Your task to perform on an android device: change the upload size in google photos Image 0: 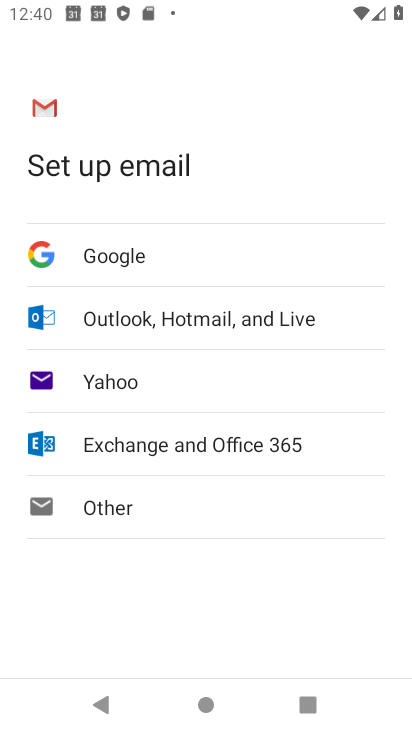
Step 0: press home button
Your task to perform on an android device: change the upload size in google photos Image 1: 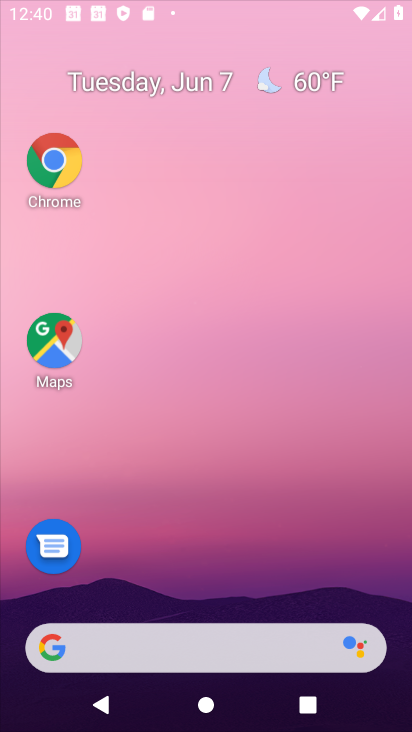
Step 1: drag from (181, 632) to (346, 262)
Your task to perform on an android device: change the upload size in google photos Image 2: 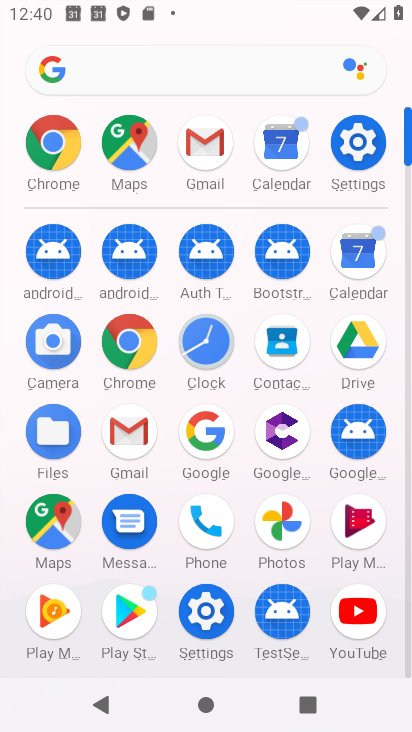
Step 2: click (305, 521)
Your task to perform on an android device: change the upload size in google photos Image 3: 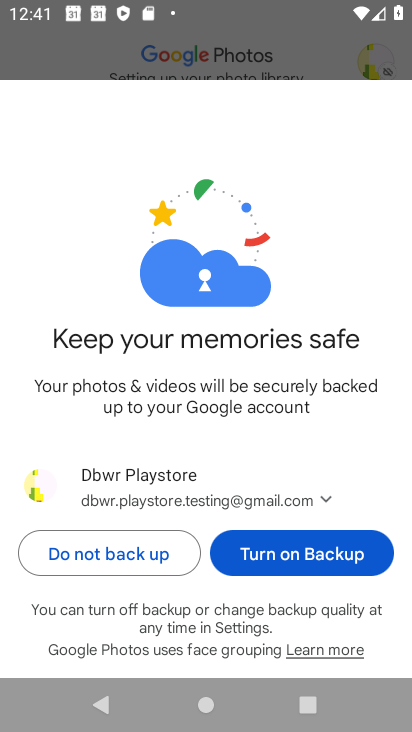
Step 3: click (273, 552)
Your task to perform on an android device: change the upload size in google photos Image 4: 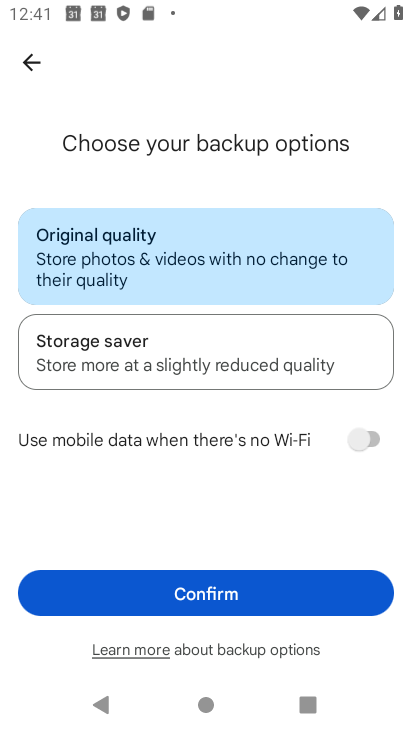
Step 4: click (171, 601)
Your task to perform on an android device: change the upload size in google photos Image 5: 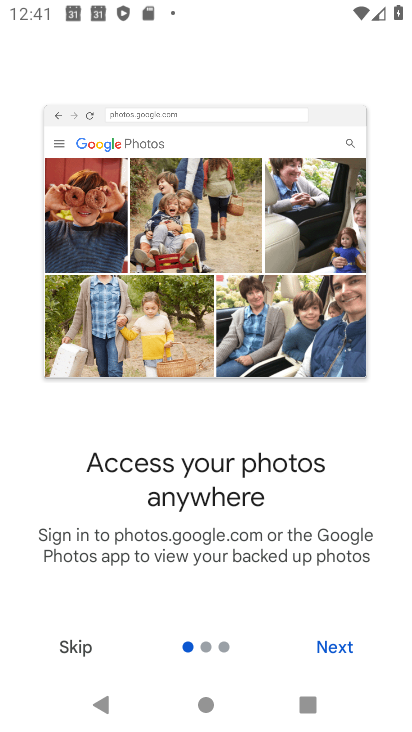
Step 5: click (77, 650)
Your task to perform on an android device: change the upload size in google photos Image 6: 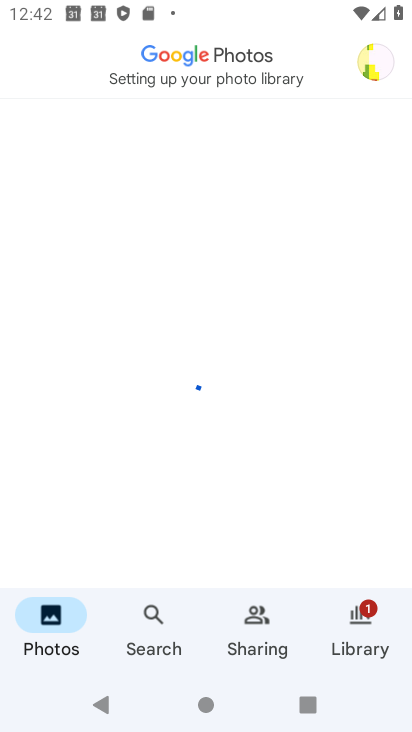
Step 6: click (330, 457)
Your task to perform on an android device: change the upload size in google photos Image 7: 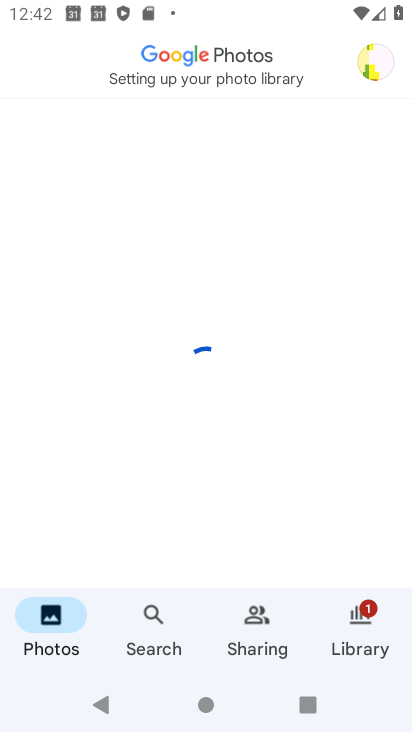
Step 7: press home button
Your task to perform on an android device: change the upload size in google photos Image 8: 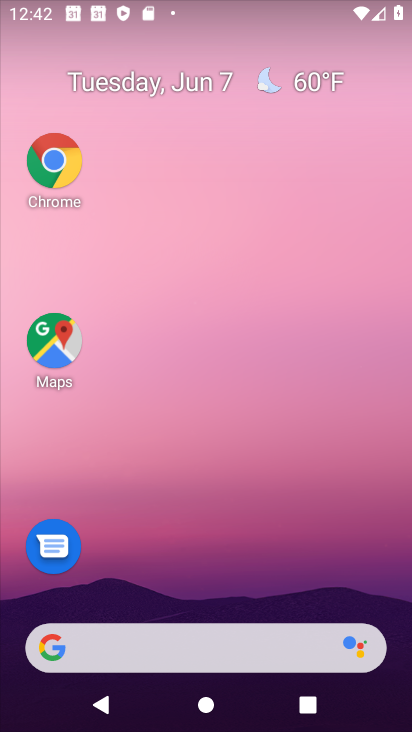
Step 8: drag from (201, 593) to (315, 198)
Your task to perform on an android device: change the upload size in google photos Image 9: 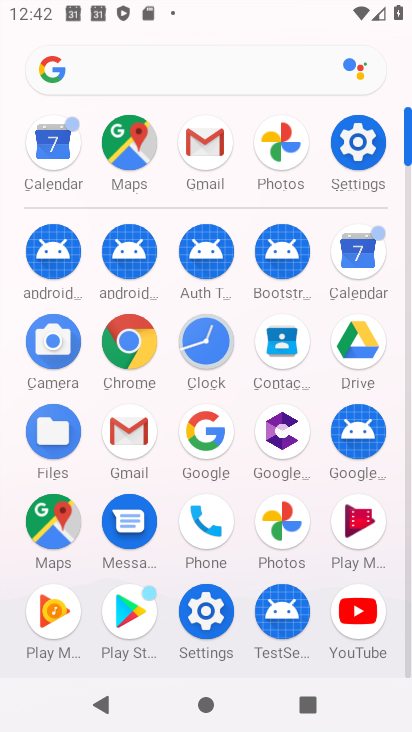
Step 9: click (284, 539)
Your task to perform on an android device: change the upload size in google photos Image 10: 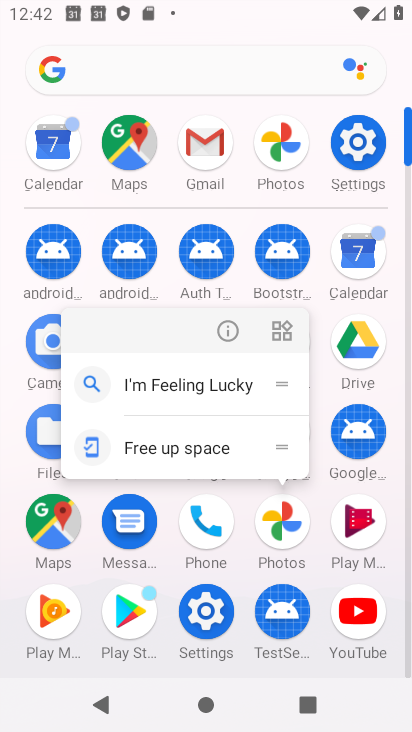
Step 10: click (236, 328)
Your task to perform on an android device: change the upload size in google photos Image 11: 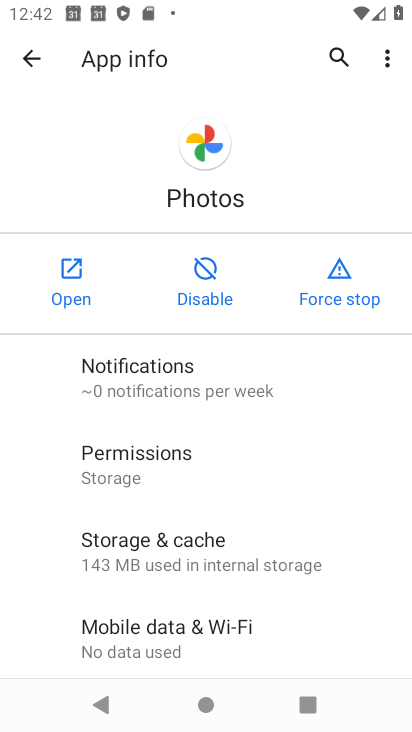
Step 11: click (81, 259)
Your task to perform on an android device: change the upload size in google photos Image 12: 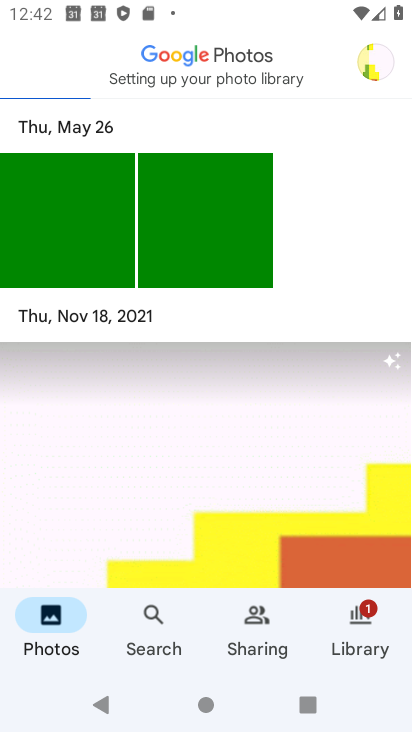
Step 12: click (371, 78)
Your task to perform on an android device: change the upload size in google photos Image 13: 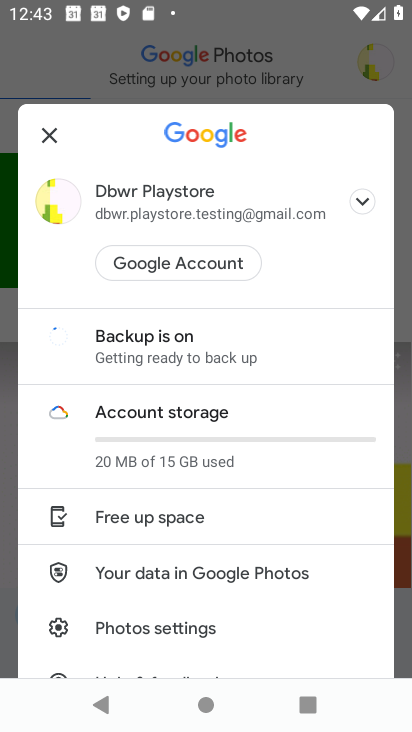
Step 13: drag from (66, 547) to (275, 14)
Your task to perform on an android device: change the upload size in google photos Image 14: 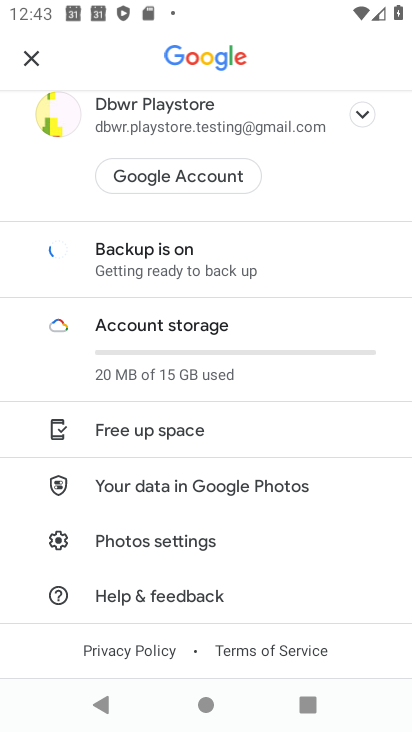
Step 14: click (168, 532)
Your task to perform on an android device: change the upload size in google photos Image 15: 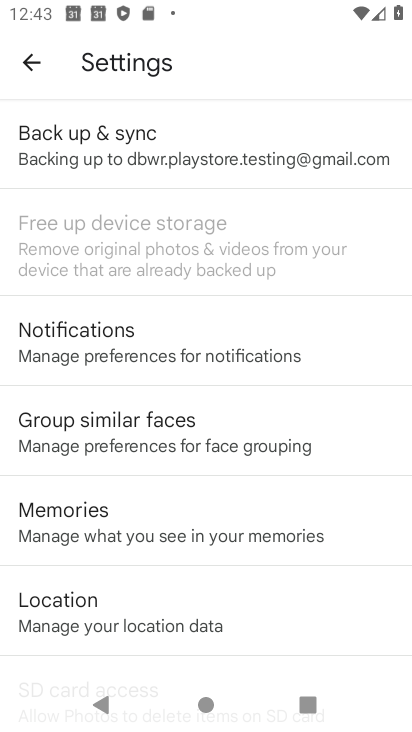
Step 15: drag from (266, 586) to (305, 126)
Your task to perform on an android device: change the upload size in google photos Image 16: 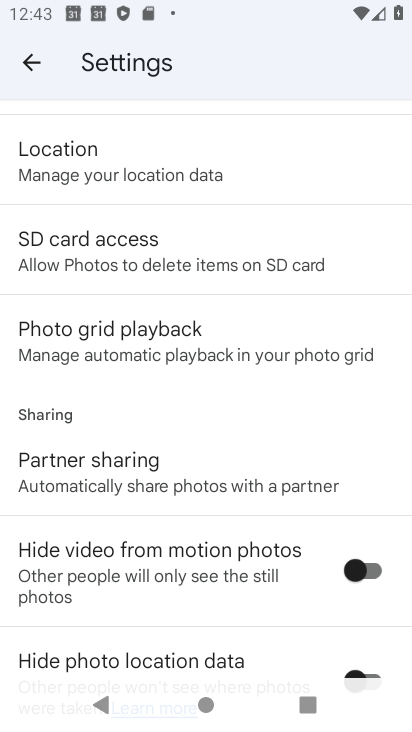
Step 16: drag from (235, 206) to (197, 731)
Your task to perform on an android device: change the upload size in google photos Image 17: 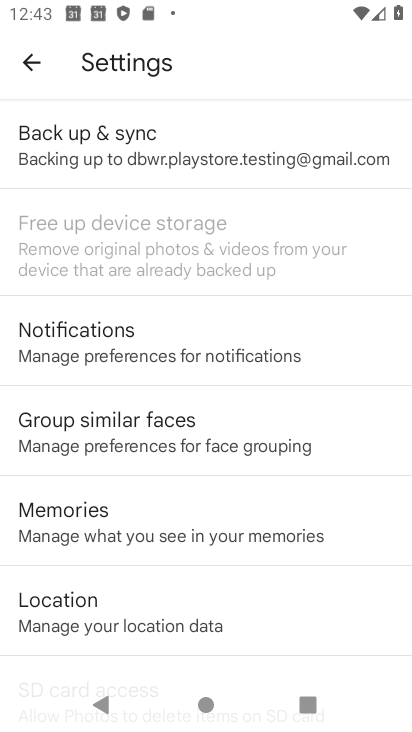
Step 17: click (223, 161)
Your task to perform on an android device: change the upload size in google photos Image 18: 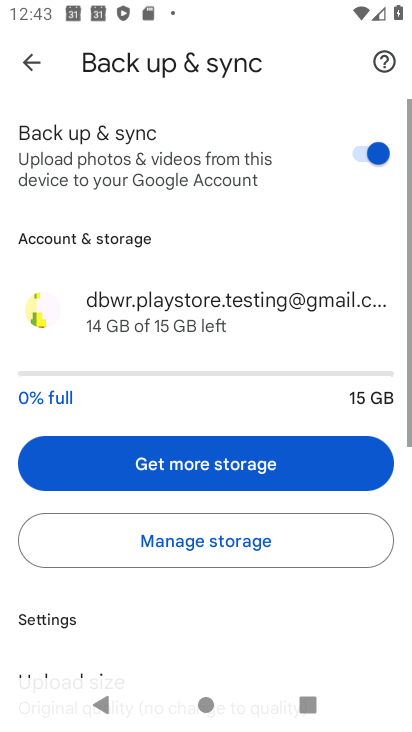
Step 18: drag from (200, 599) to (339, 102)
Your task to perform on an android device: change the upload size in google photos Image 19: 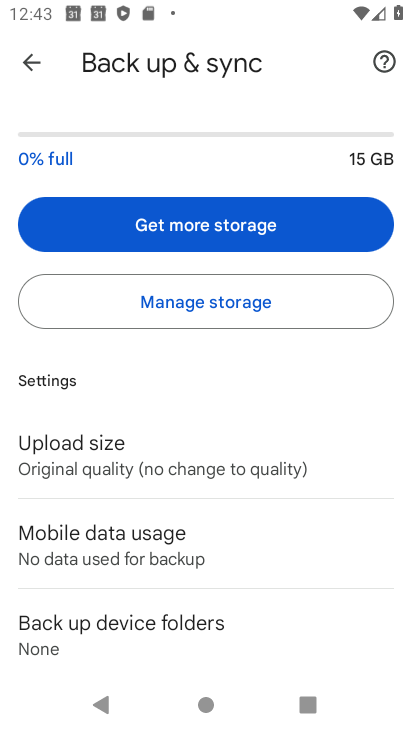
Step 19: click (97, 445)
Your task to perform on an android device: change the upload size in google photos Image 20: 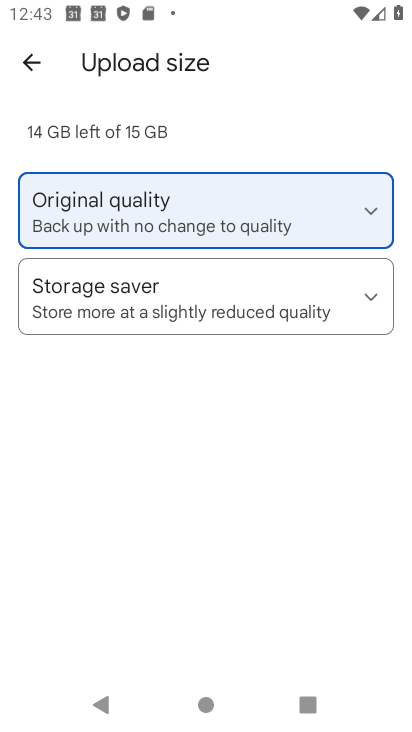
Step 20: drag from (215, 485) to (288, 272)
Your task to perform on an android device: change the upload size in google photos Image 21: 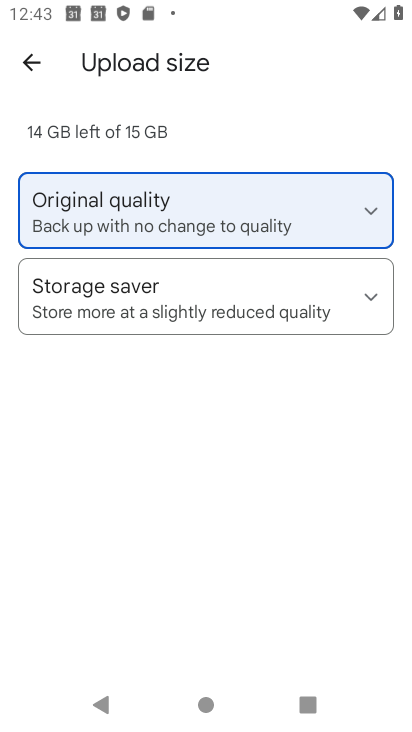
Step 21: click (234, 299)
Your task to perform on an android device: change the upload size in google photos Image 22: 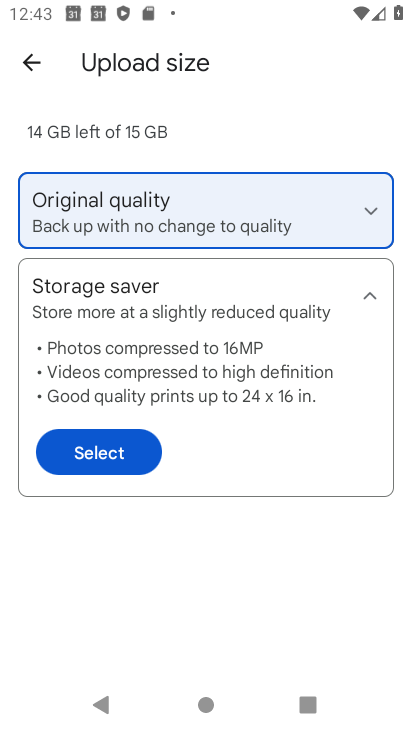
Step 22: click (100, 460)
Your task to perform on an android device: change the upload size in google photos Image 23: 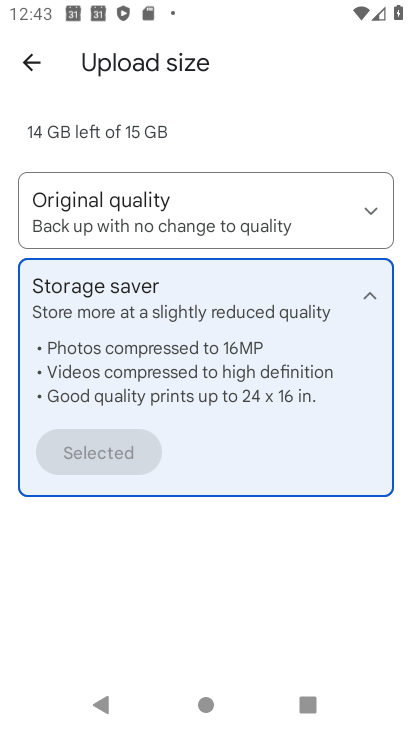
Step 23: task complete